Your task to perform on an android device: turn on improve location accuracy Image 0: 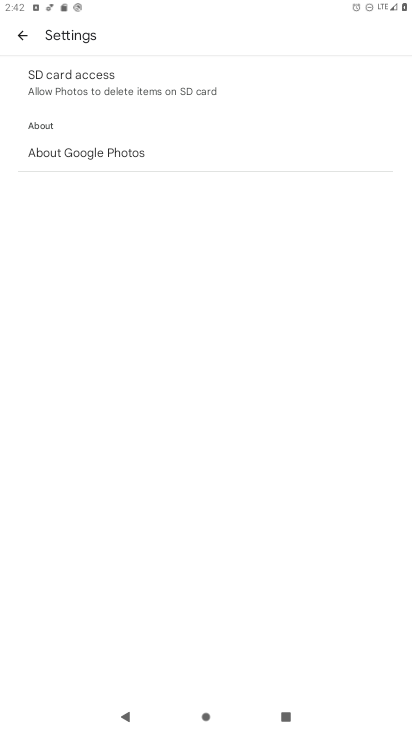
Step 0: press home button
Your task to perform on an android device: turn on improve location accuracy Image 1: 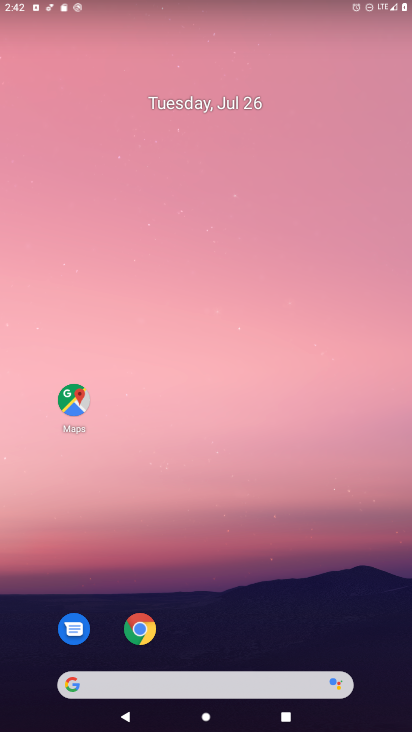
Step 1: drag from (379, 650) to (315, 165)
Your task to perform on an android device: turn on improve location accuracy Image 2: 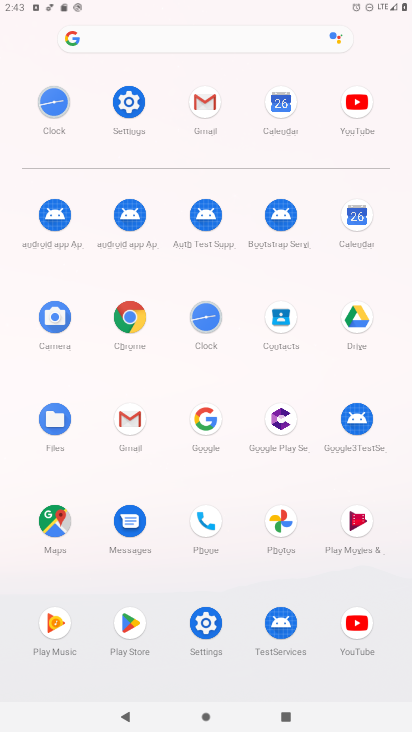
Step 2: click (206, 622)
Your task to perform on an android device: turn on improve location accuracy Image 3: 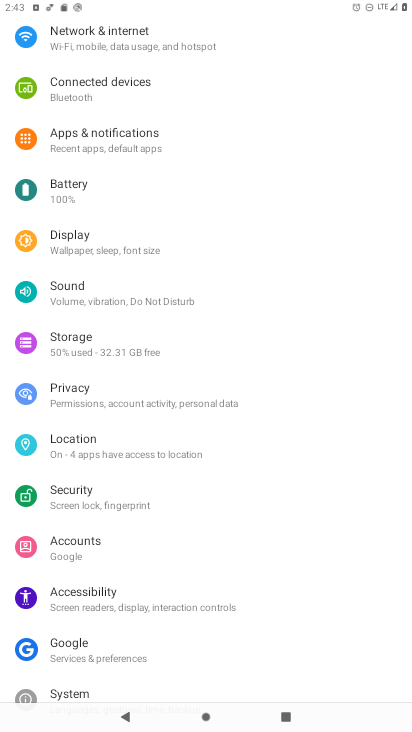
Step 3: click (74, 438)
Your task to perform on an android device: turn on improve location accuracy Image 4: 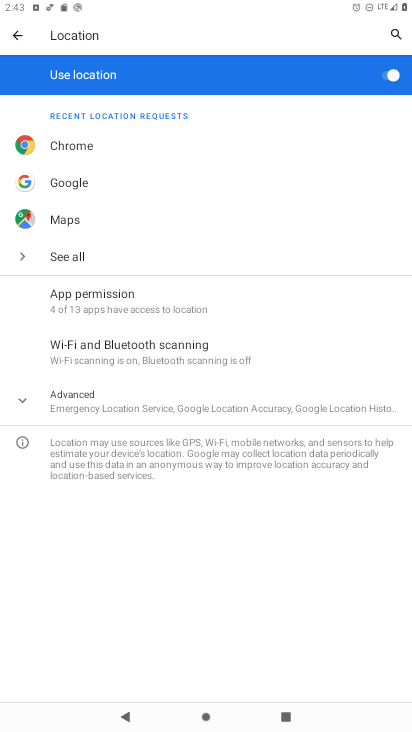
Step 4: click (16, 397)
Your task to perform on an android device: turn on improve location accuracy Image 5: 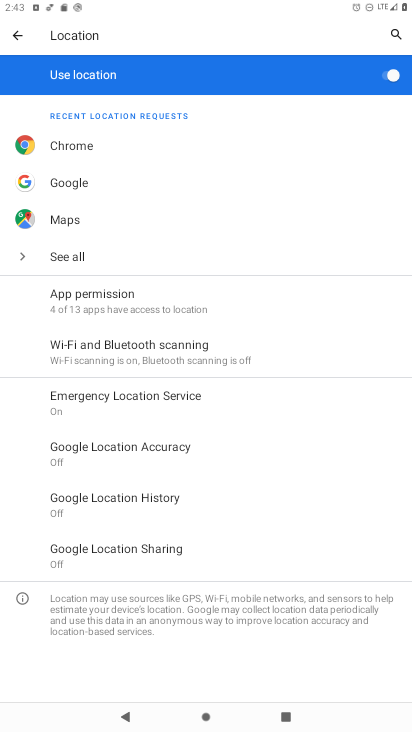
Step 5: click (129, 447)
Your task to perform on an android device: turn on improve location accuracy Image 6: 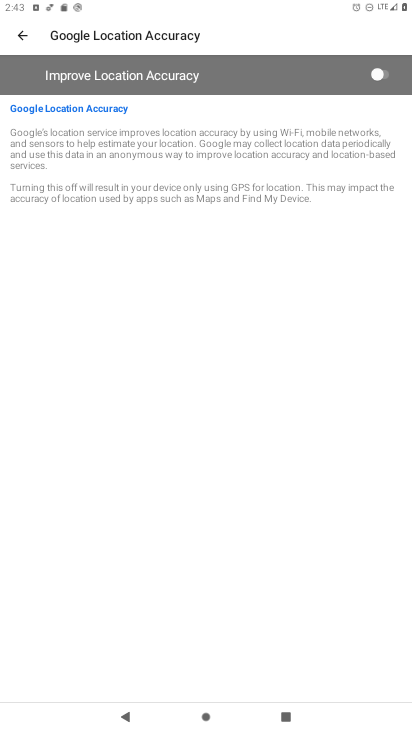
Step 6: click (382, 74)
Your task to perform on an android device: turn on improve location accuracy Image 7: 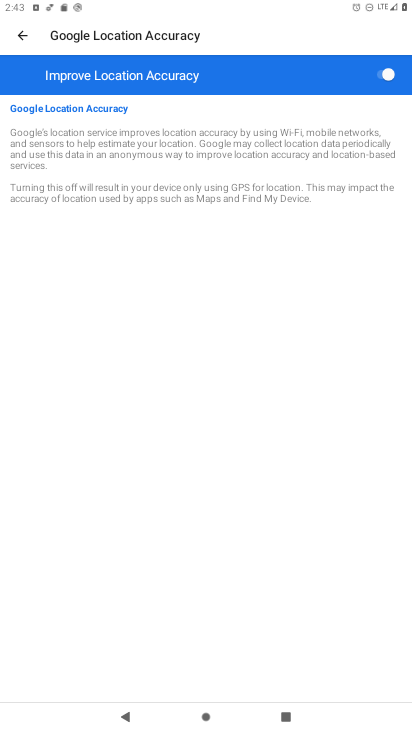
Step 7: task complete